Your task to perform on an android device: Is it going to rain tomorrow? Image 0: 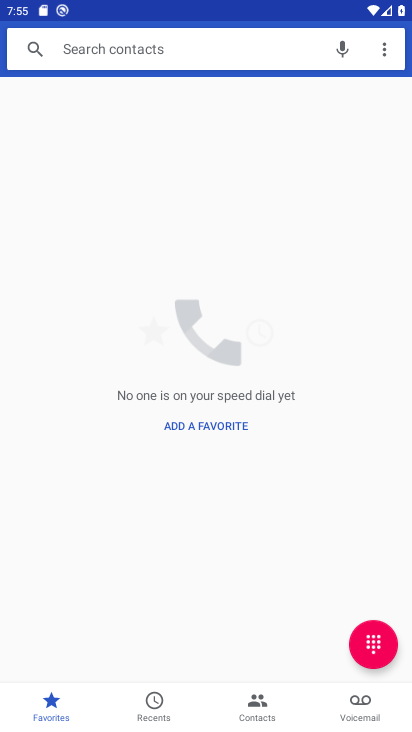
Step 0: press home button
Your task to perform on an android device: Is it going to rain tomorrow? Image 1: 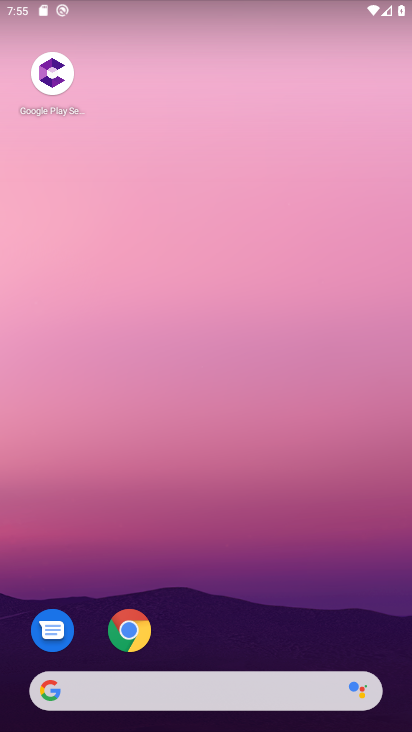
Step 1: drag from (225, 646) to (252, 230)
Your task to perform on an android device: Is it going to rain tomorrow? Image 2: 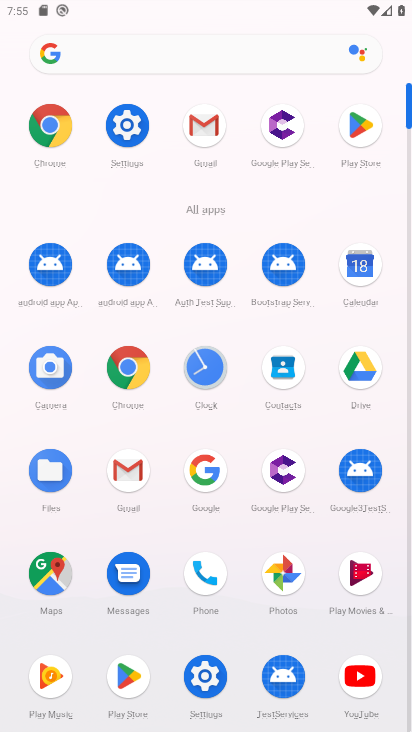
Step 2: click (213, 467)
Your task to perform on an android device: Is it going to rain tomorrow? Image 3: 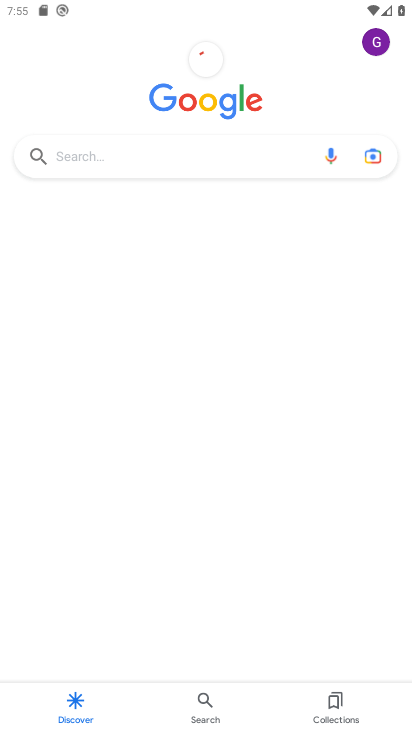
Step 3: click (159, 149)
Your task to perform on an android device: Is it going to rain tomorrow? Image 4: 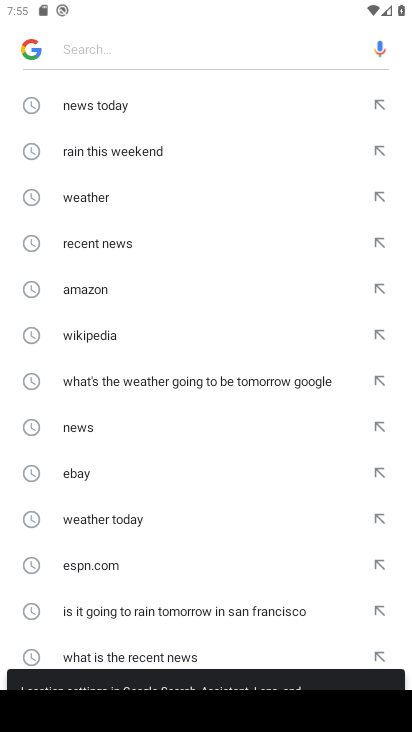
Step 4: click (109, 188)
Your task to perform on an android device: Is it going to rain tomorrow? Image 5: 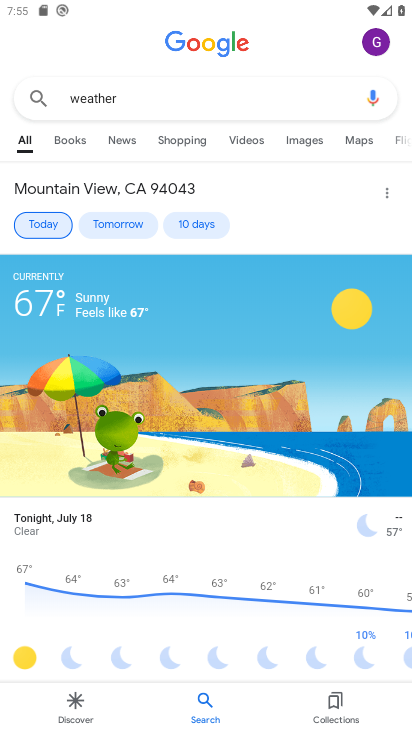
Step 5: click (137, 220)
Your task to perform on an android device: Is it going to rain tomorrow? Image 6: 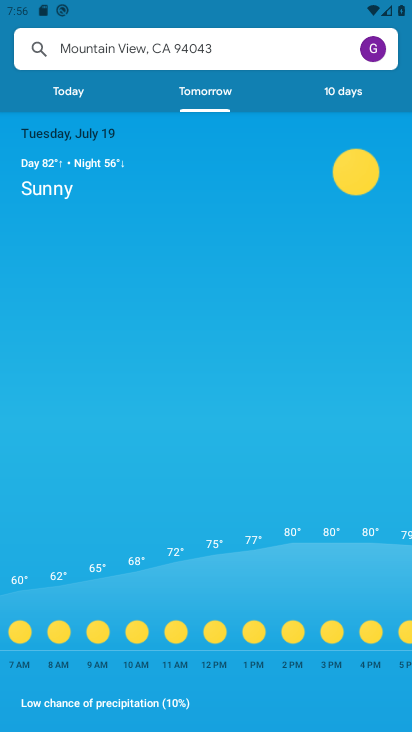
Step 6: task complete